Your task to perform on an android device: turn off wifi Image 0: 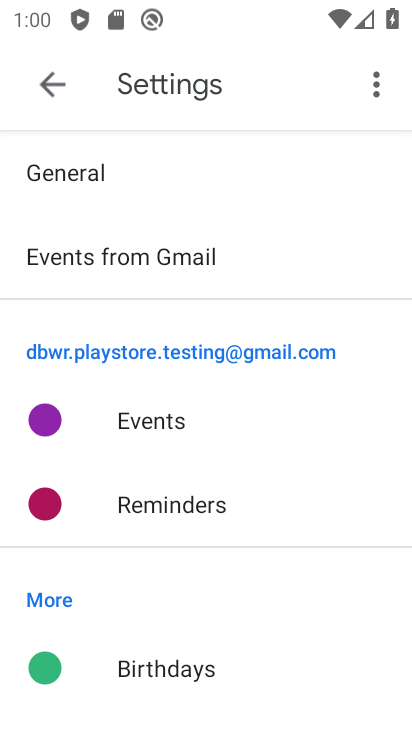
Step 0: drag from (326, 14) to (324, 473)
Your task to perform on an android device: turn off wifi Image 1: 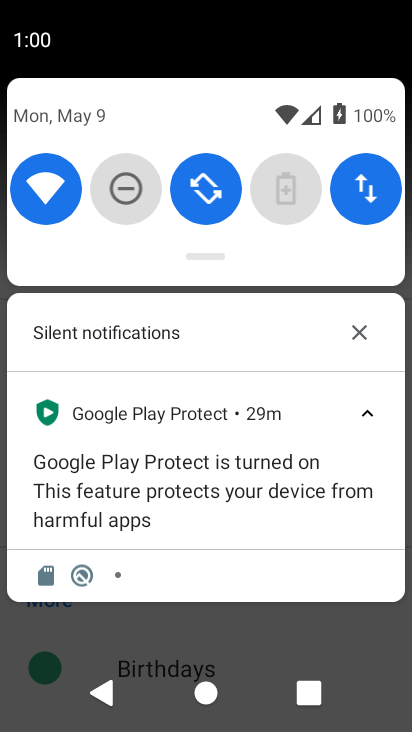
Step 1: click (67, 197)
Your task to perform on an android device: turn off wifi Image 2: 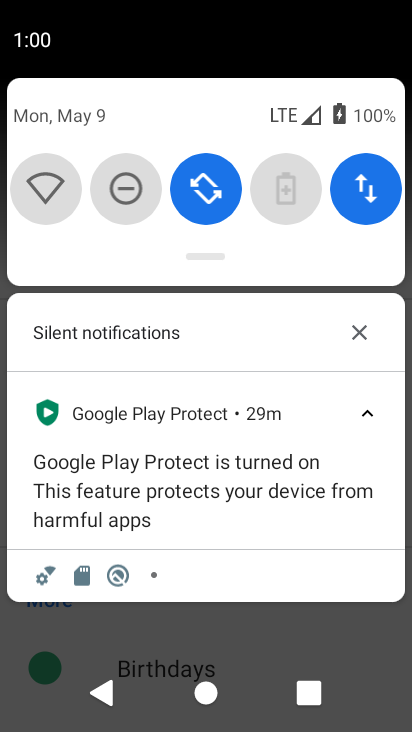
Step 2: task complete